Your task to perform on an android device: Open calendar and show me the third week of next month Image 0: 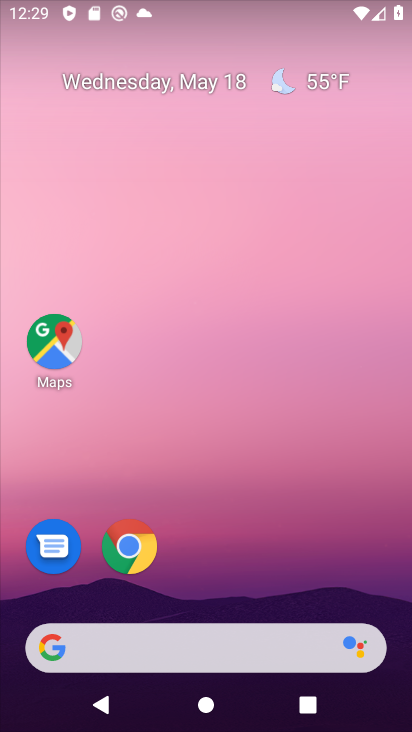
Step 0: drag from (322, 586) to (316, 184)
Your task to perform on an android device: Open calendar and show me the third week of next month Image 1: 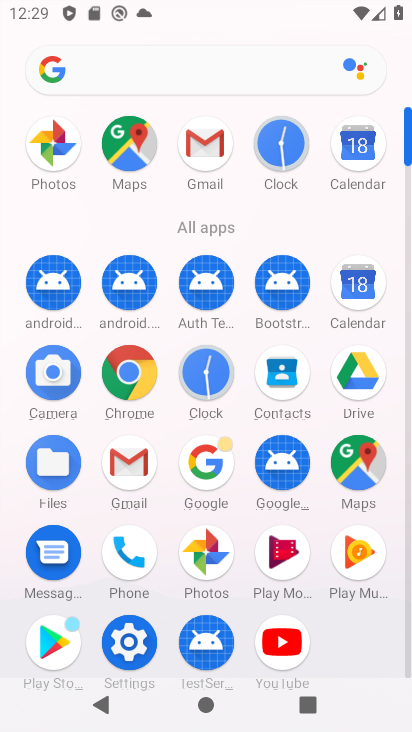
Step 1: click (352, 285)
Your task to perform on an android device: Open calendar and show me the third week of next month Image 2: 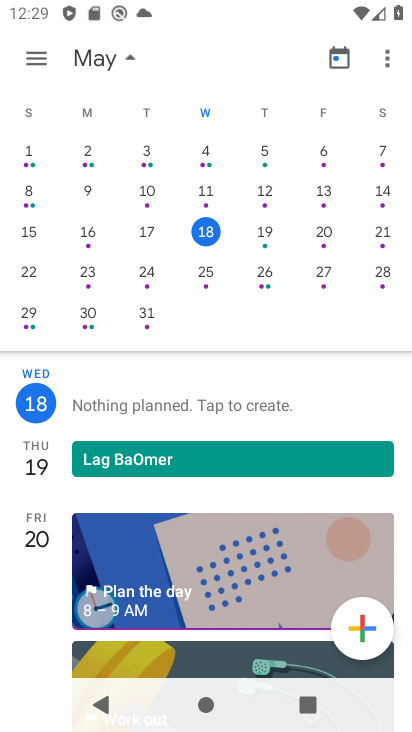
Step 2: drag from (371, 144) to (0, 137)
Your task to perform on an android device: Open calendar and show me the third week of next month Image 3: 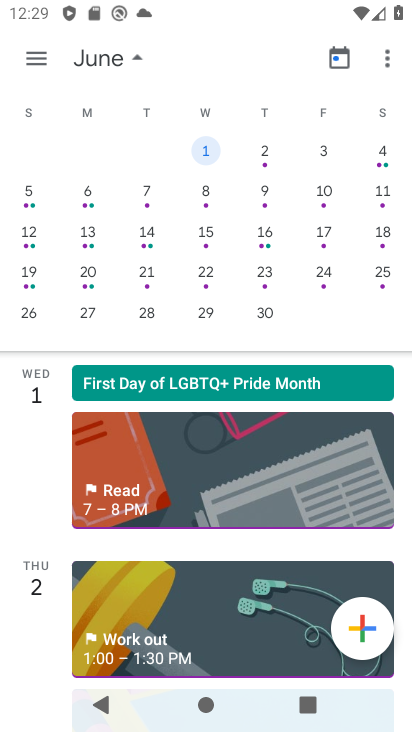
Step 3: click (33, 272)
Your task to perform on an android device: Open calendar and show me the third week of next month Image 4: 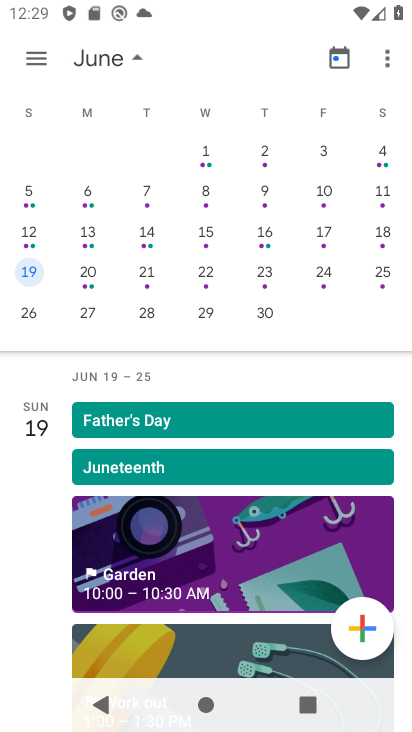
Step 4: click (26, 235)
Your task to perform on an android device: Open calendar and show me the third week of next month Image 5: 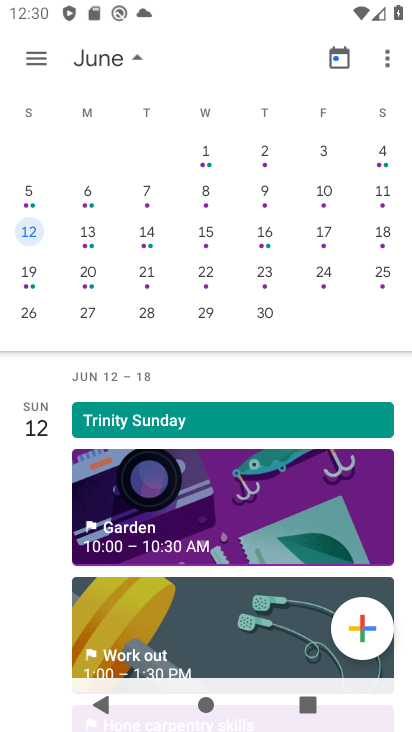
Step 5: task complete